Your task to perform on an android device: move an email to a new category in the gmail app Image 0: 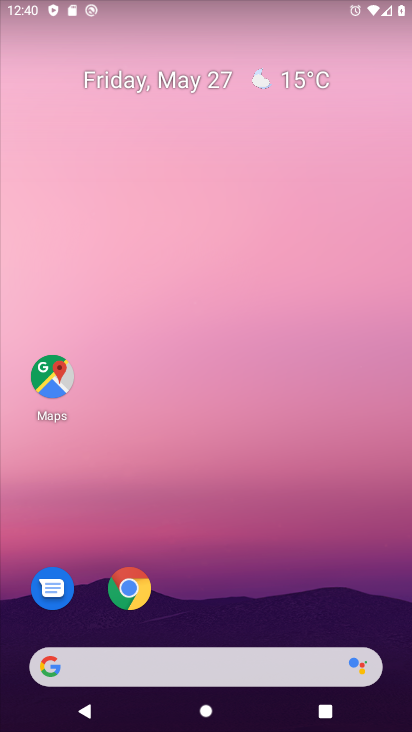
Step 0: drag from (393, 621) to (336, 135)
Your task to perform on an android device: move an email to a new category in the gmail app Image 1: 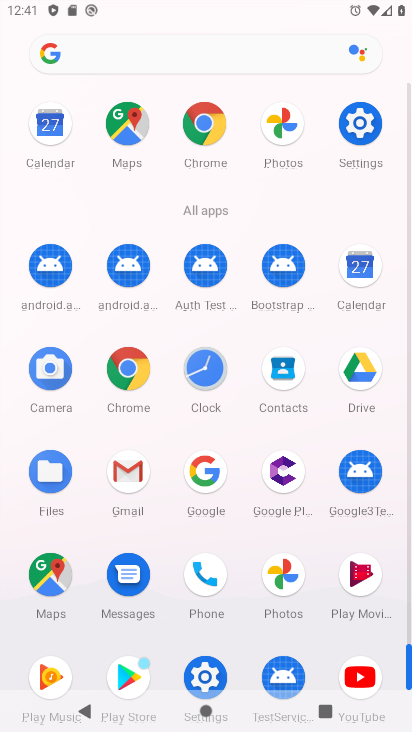
Step 1: click (124, 473)
Your task to perform on an android device: move an email to a new category in the gmail app Image 2: 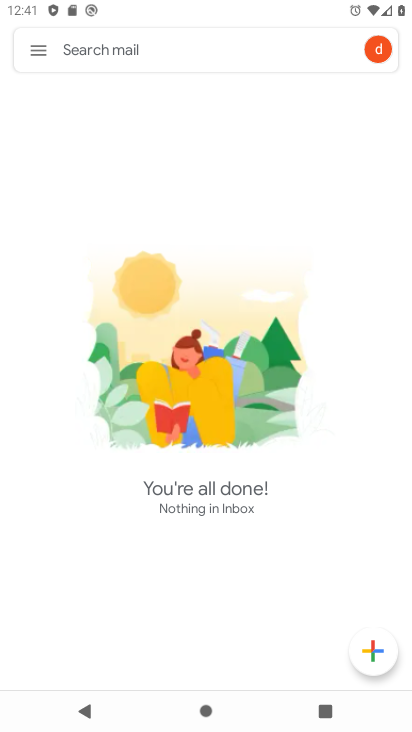
Step 2: click (42, 50)
Your task to perform on an android device: move an email to a new category in the gmail app Image 3: 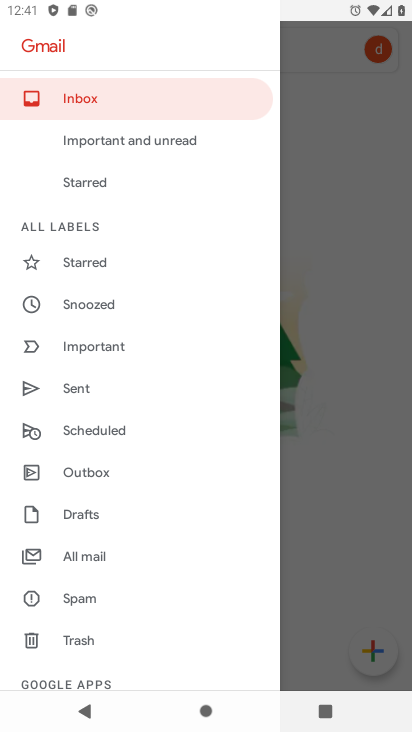
Step 3: click (87, 554)
Your task to perform on an android device: move an email to a new category in the gmail app Image 4: 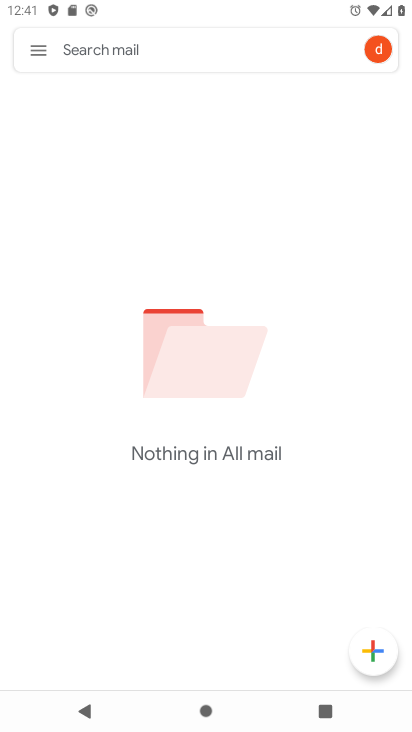
Step 4: task complete